Your task to perform on an android device: Go to sound settings Image 0: 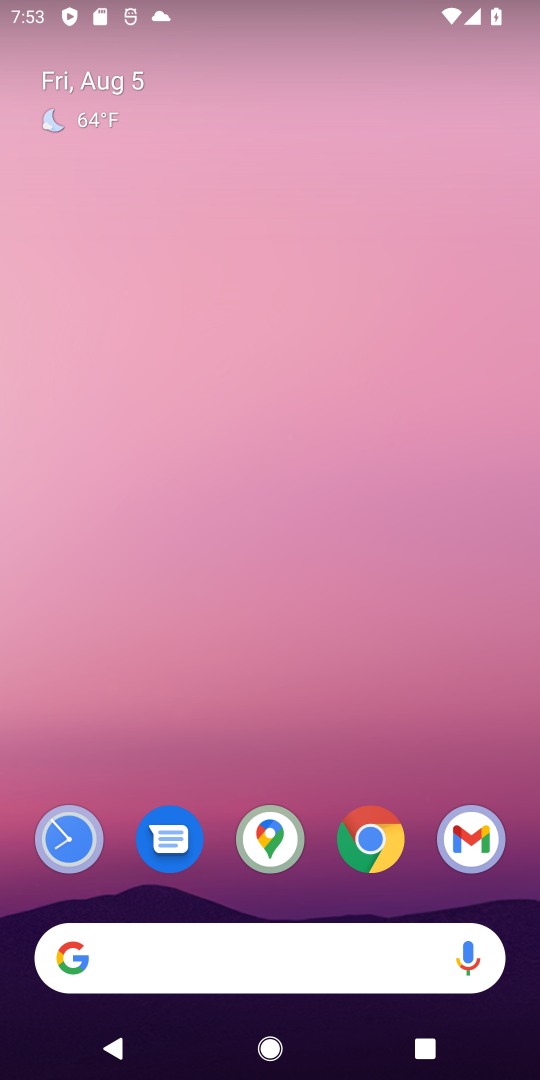
Step 0: drag from (326, 710) to (330, 230)
Your task to perform on an android device: Go to sound settings Image 1: 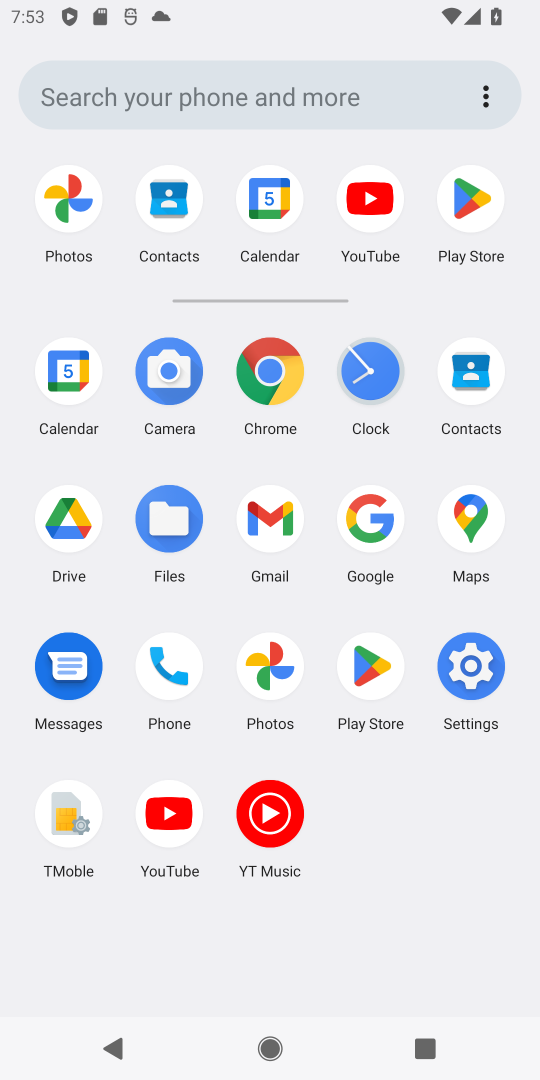
Step 1: click (464, 683)
Your task to perform on an android device: Go to sound settings Image 2: 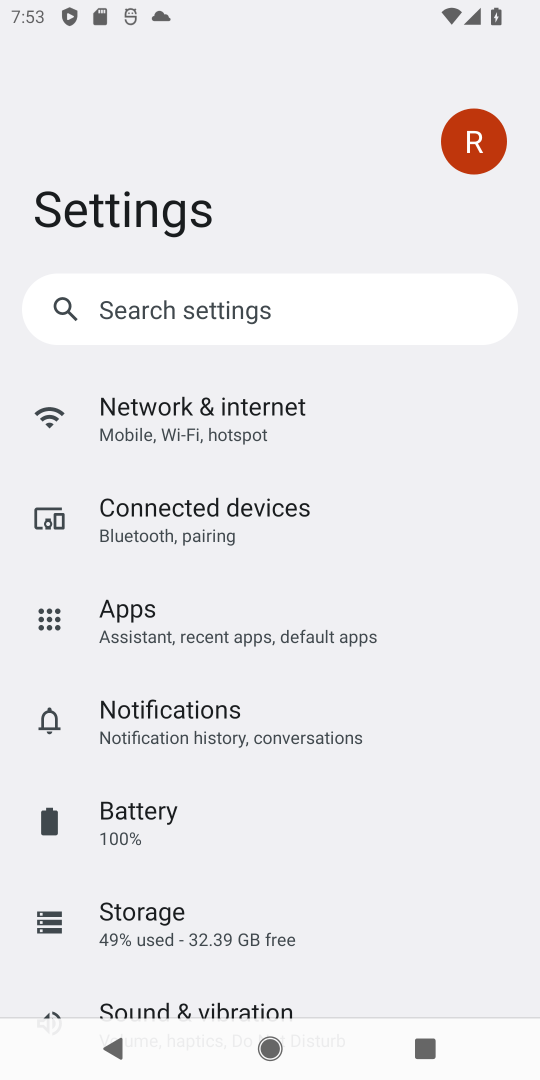
Step 2: task complete